Your task to perform on an android device: Is it going to rain tomorrow? Image 0: 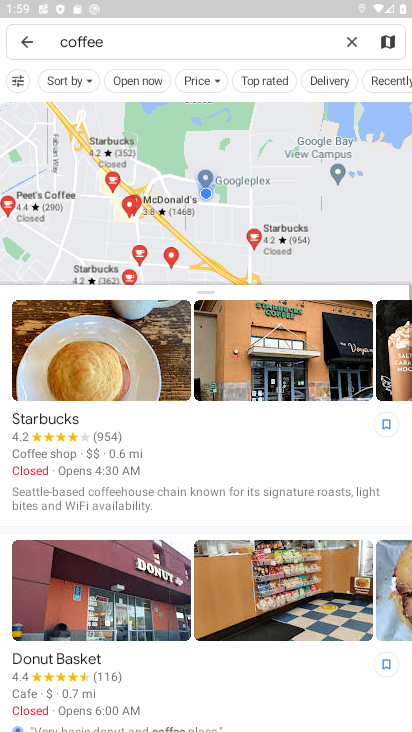
Step 0: press home button
Your task to perform on an android device: Is it going to rain tomorrow? Image 1: 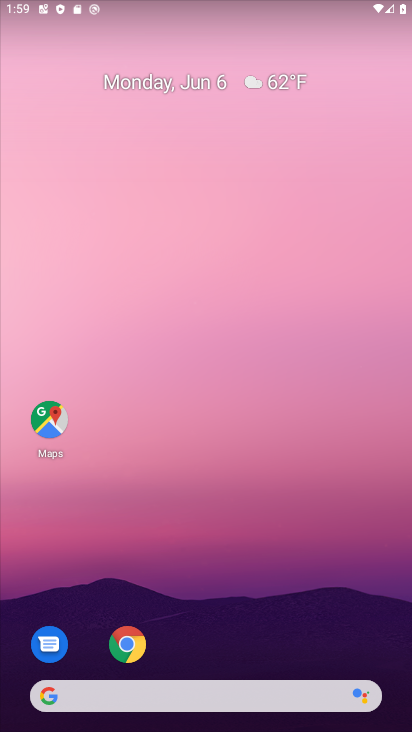
Step 1: click (142, 701)
Your task to perform on an android device: Is it going to rain tomorrow? Image 2: 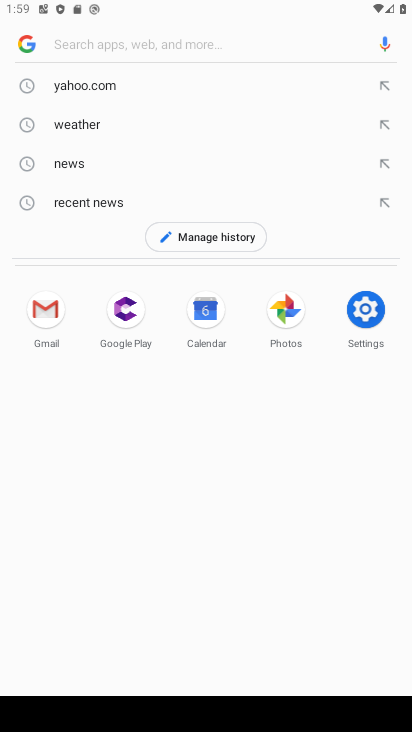
Step 2: type "weather tomorrow"
Your task to perform on an android device: Is it going to rain tomorrow? Image 3: 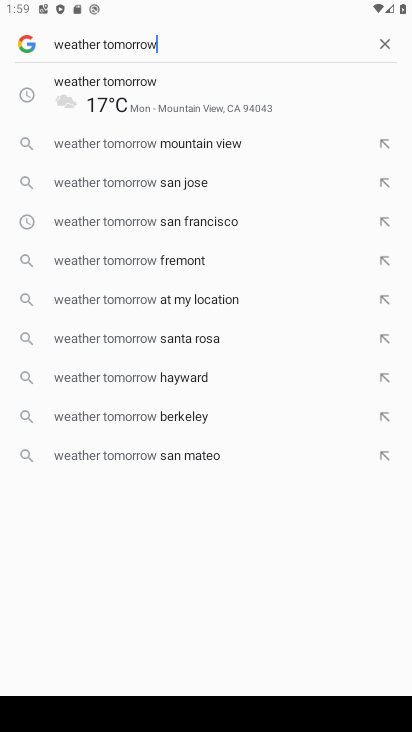
Step 3: click (177, 83)
Your task to perform on an android device: Is it going to rain tomorrow? Image 4: 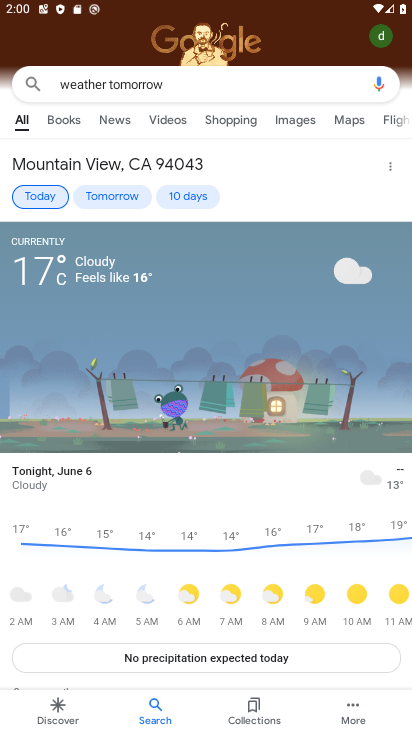
Step 4: task complete